Your task to perform on an android device: open a bookmark in the chrome app Image 0: 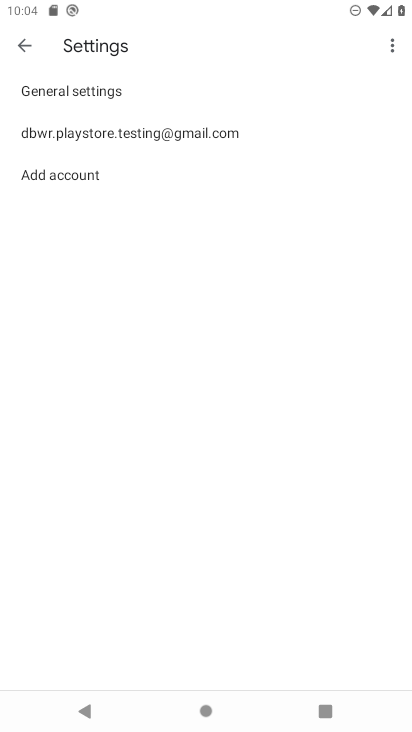
Step 0: press home button
Your task to perform on an android device: open a bookmark in the chrome app Image 1: 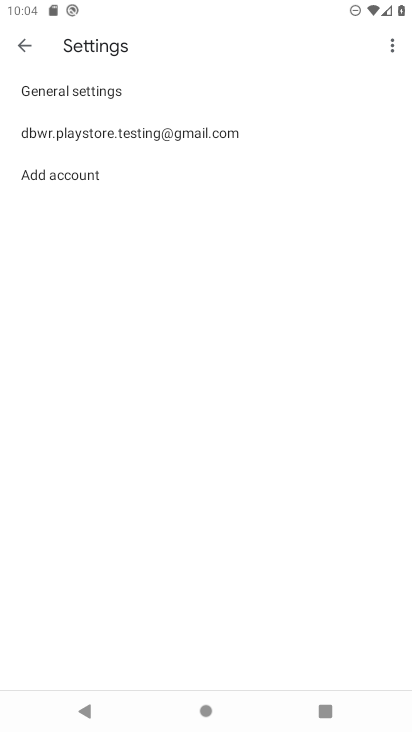
Step 1: press home button
Your task to perform on an android device: open a bookmark in the chrome app Image 2: 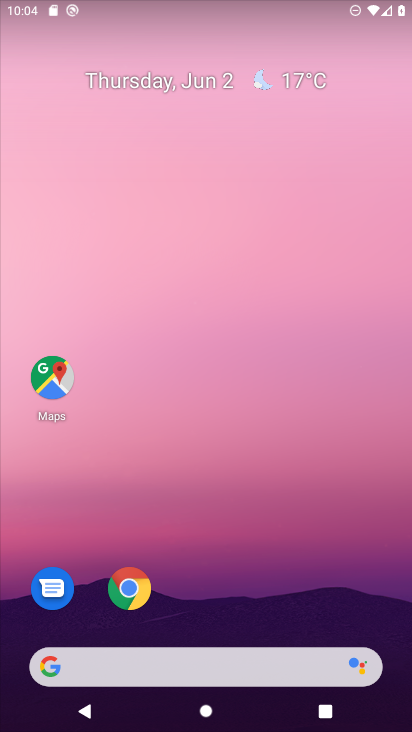
Step 2: drag from (247, 601) to (286, 281)
Your task to perform on an android device: open a bookmark in the chrome app Image 3: 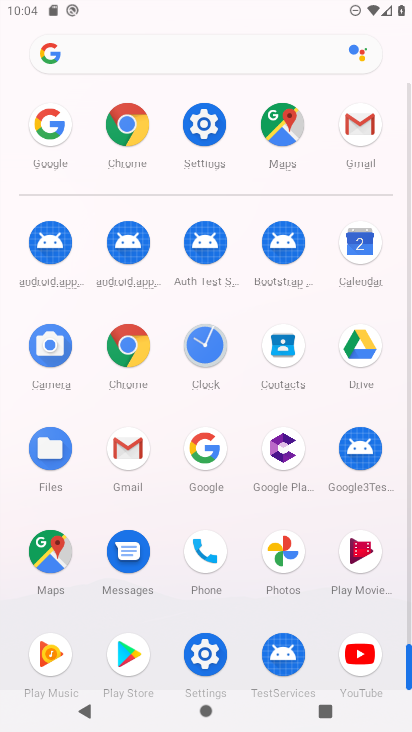
Step 3: click (134, 126)
Your task to perform on an android device: open a bookmark in the chrome app Image 4: 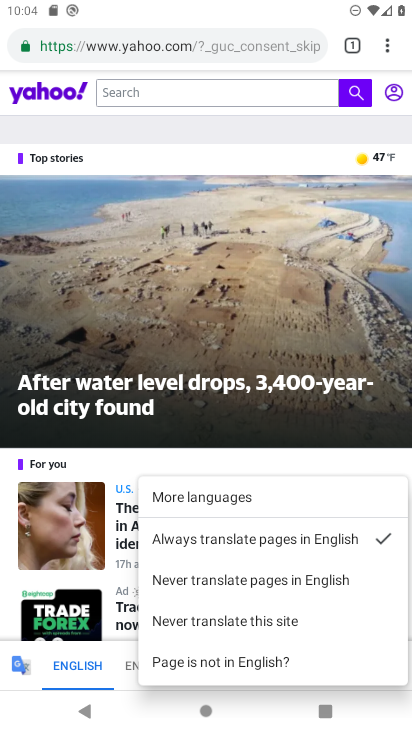
Step 4: click (395, 41)
Your task to perform on an android device: open a bookmark in the chrome app Image 5: 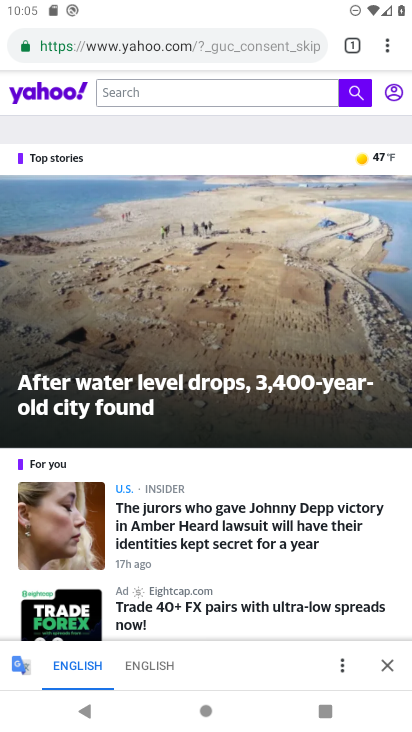
Step 5: click (396, 51)
Your task to perform on an android device: open a bookmark in the chrome app Image 6: 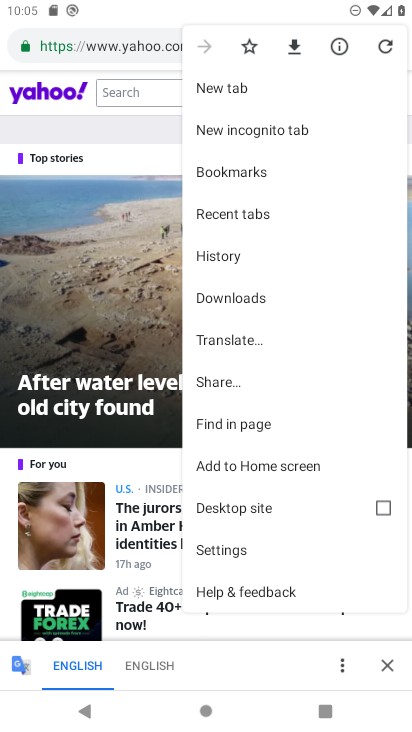
Step 6: click (239, 176)
Your task to perform on an android device: open a bookmark in the chrome app Image 7: 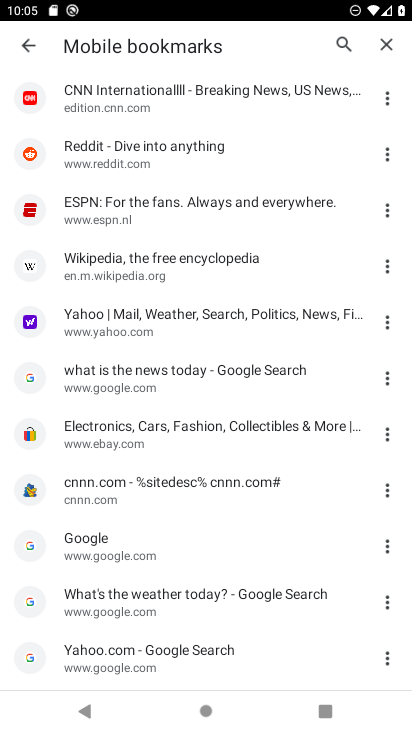
Step 7: click (178, 430)
Your task to perform on an android device: open a bookmark in the chrome app Image 8: 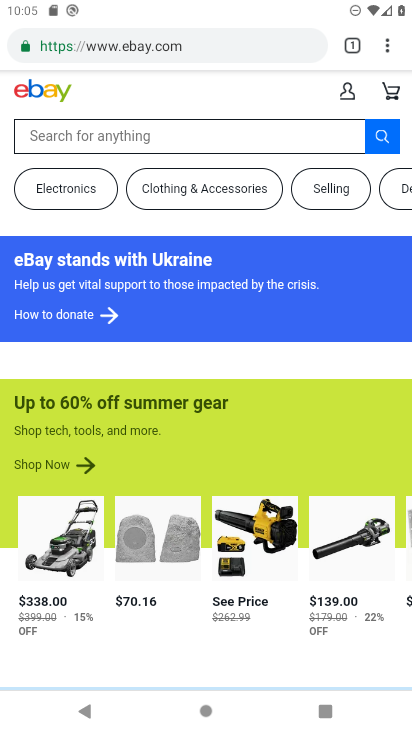
Step 8: task complete